Your task to perform on an android device: turn off improve location accuracy Image 0: 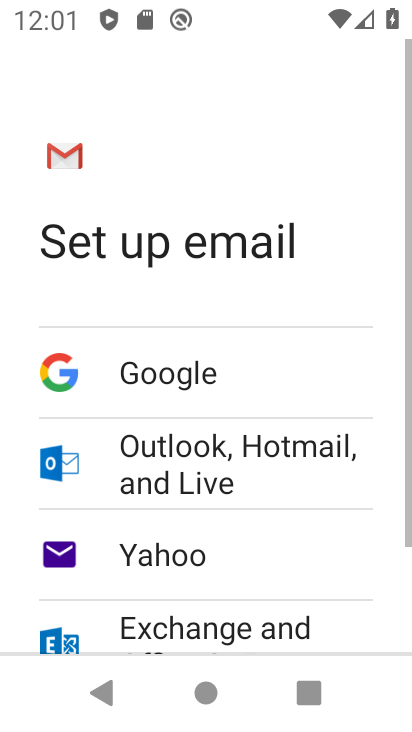
Step 0: press home button
Your task to perform on an android device: turn off improve location accuracy Image 1: 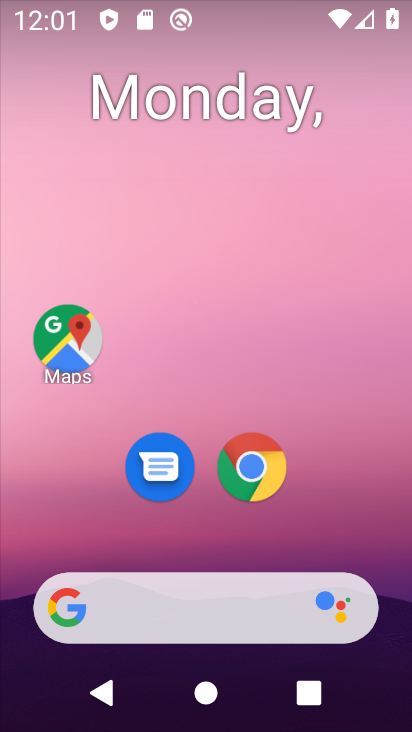
Step 1: drag from (381, 594) to (371, 13)
Your task to perform on an android device: turn off improve location accuracy Image 2: 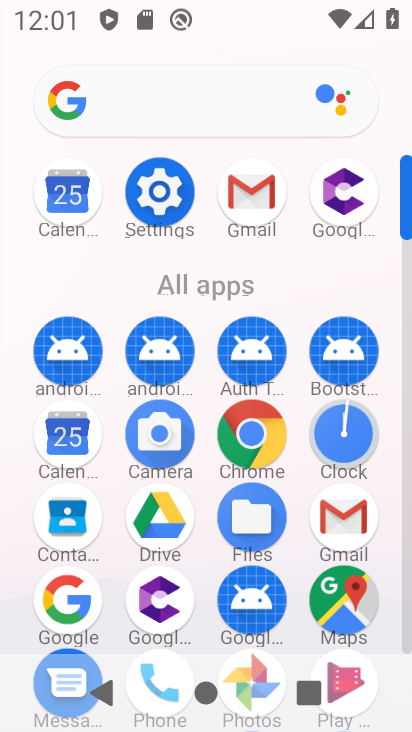
Step 2: click (406, 630)
Your task to perform on an android device: turn off improve location accuracy Image 3: 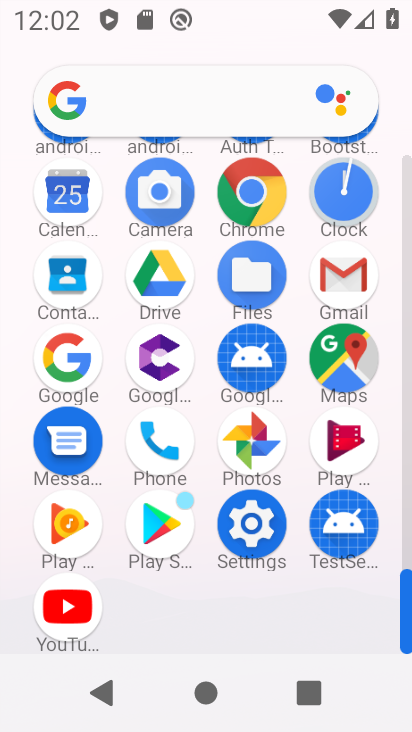
Step 3: click (251, 520)
Your task to perform on an android device: turn off improve location accuracy Image 4: 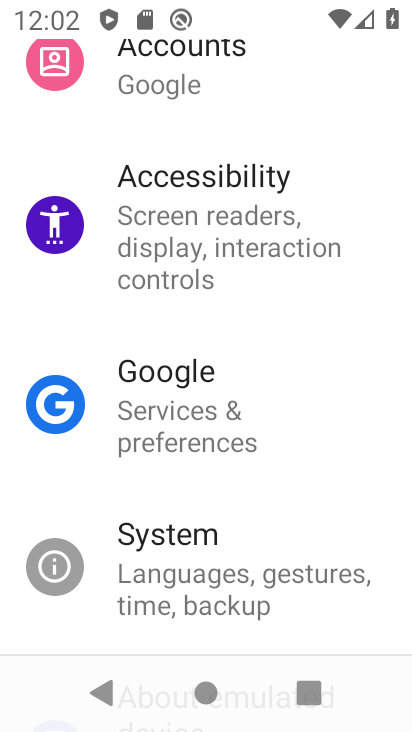
Step 4: drag from (344, 264) to (315, 571)
Your task to perform on an android device: turn off improve location accuracy Image 5: 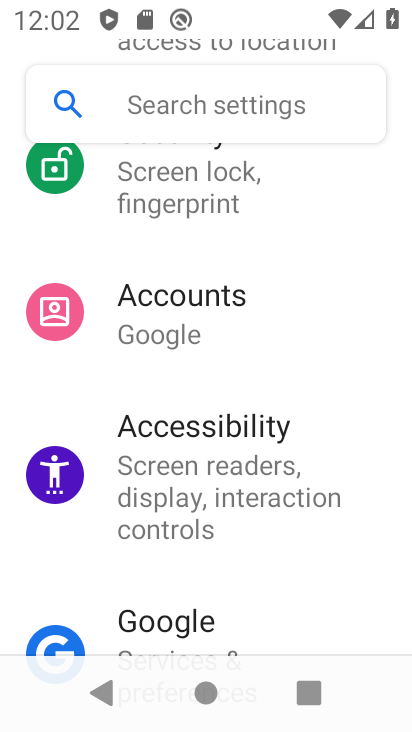
Step 5: drag from (351, 235) to (309, 549)
Your task to perform on an android device: turn off improve location accuracy Image 6: 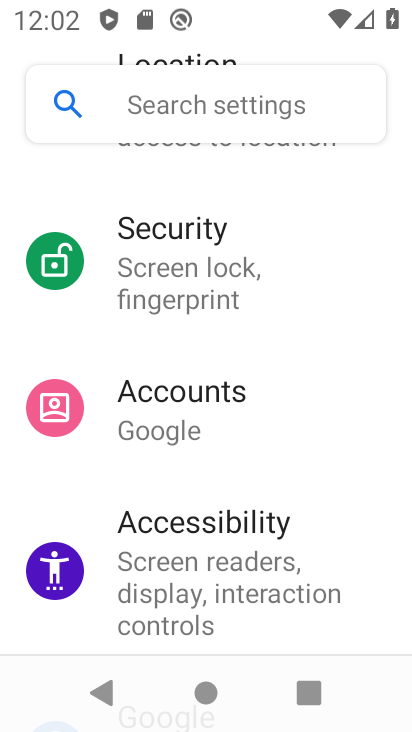
Step 6: drag from (324, 320) to (308, 528)
Your task to perform on an android device: turn off improve location accuracy Image 7: 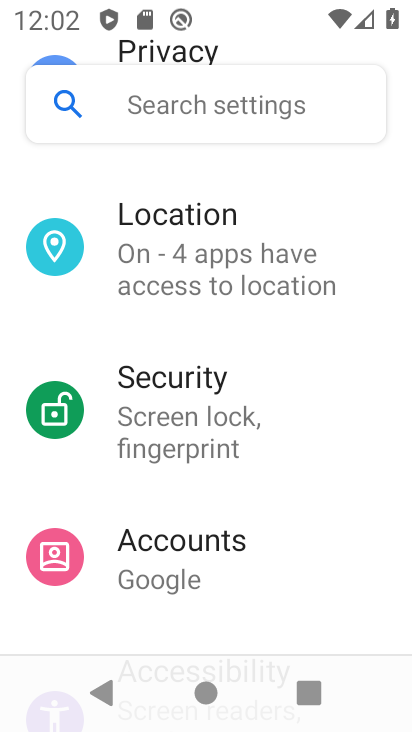
Step 7: drag from (308, 588) to (348, 215)
Your task to perform on an android device: turn off improve location accuracy Image 8: 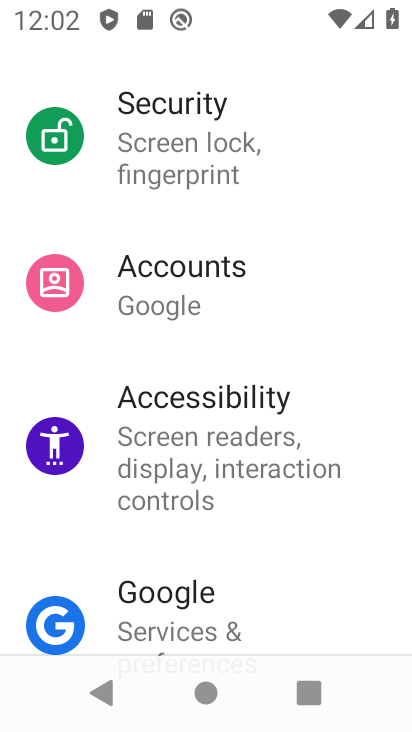
Step 8: drag from (342, 160) to (339, 499)
Your task to perform on an android device: turn off improve location accuracy Image 9: 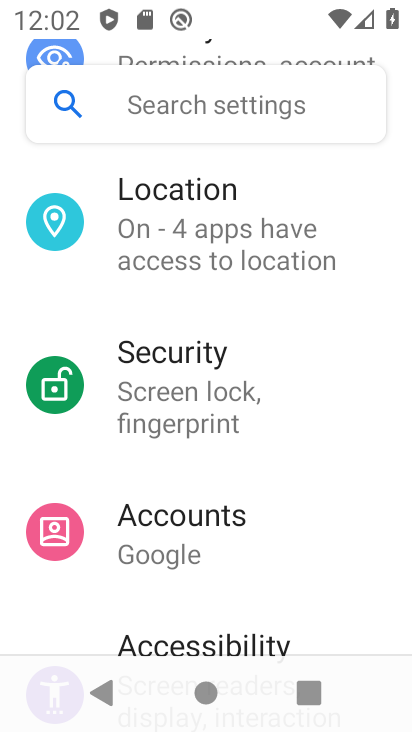
Step 9: drag from (332, 273) to (277, 435)
Your task to perform on an android device: turn off improve location accuracy Image 10: 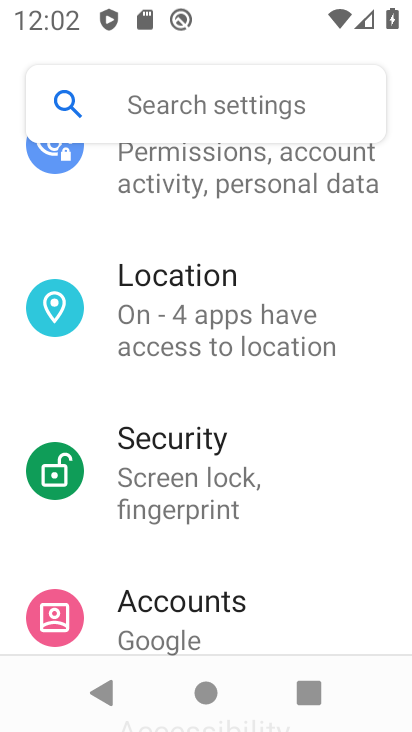
Step 10: click (163, 313)
Your task to perform on an android device: turn off improve location accuracy Image 11: 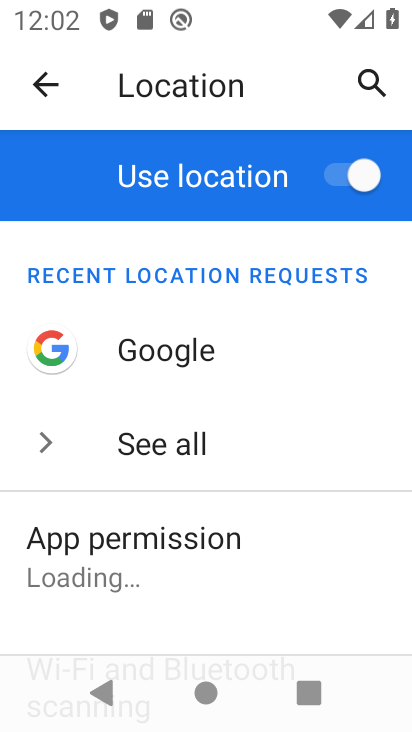
Step 11: drag from (287, 562) to (310, 194)
Your task to perform on an android device: turn off improve location accuracy Image 12: 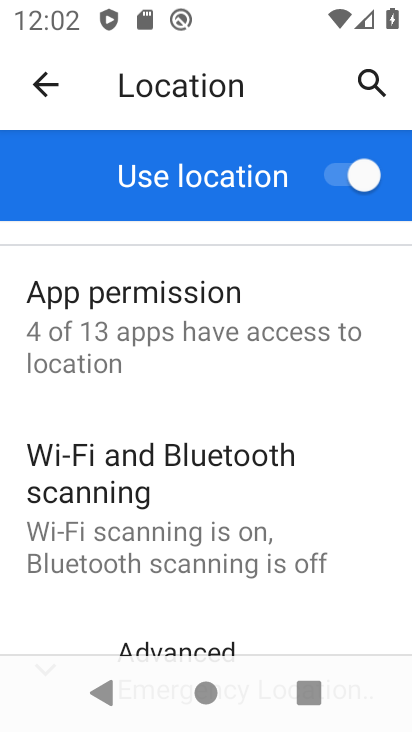
Step 12: drag from (313, 579) to (299, 210)
Your task to perform on an android device: turn off improve location accuracy Image 13: 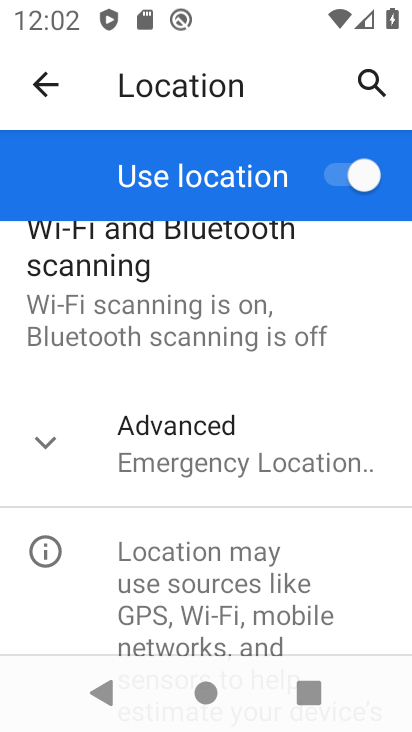
Step 13: click (44, 442)
Your task to perform on an android device: turn off improve location accuracy Image 14: 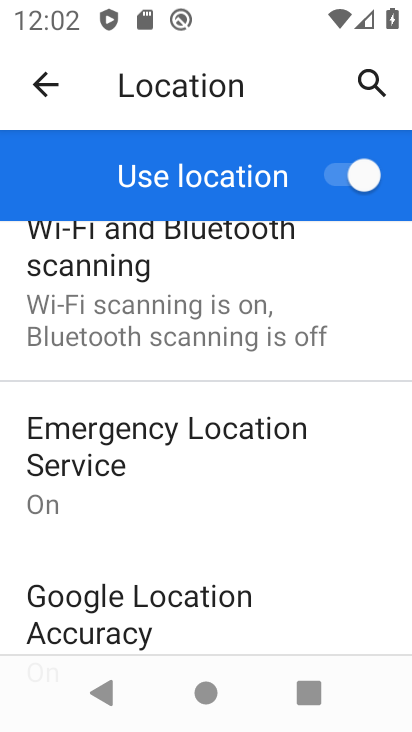
Step 14: drag from (297, 577) to (305, 191)
Your task to perform on an android device: turn off improve location accuracy Image 15: 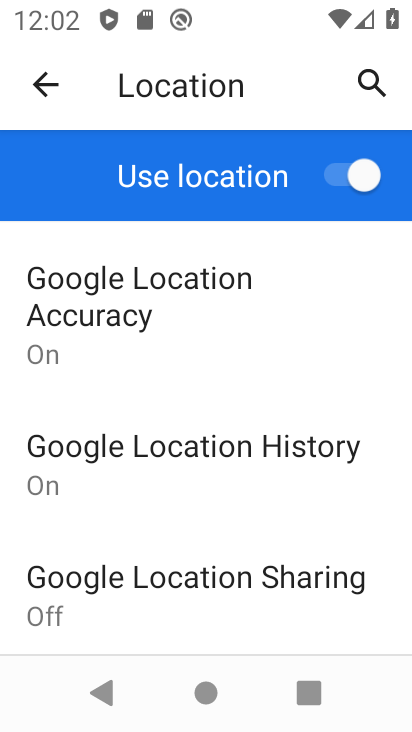
Step 15: click (35, 286)
Your task to perform on an android device: turn off improve location accuracy Image 16: 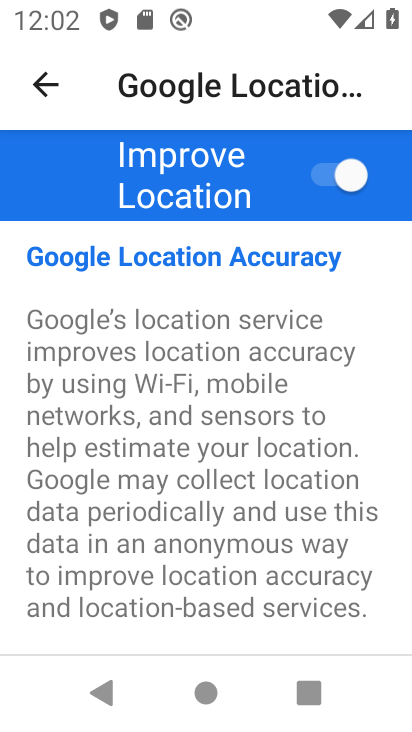
Step 16: click (315, 164)
Your task to perform on an android device: turn off improve location accuracy Image 17: 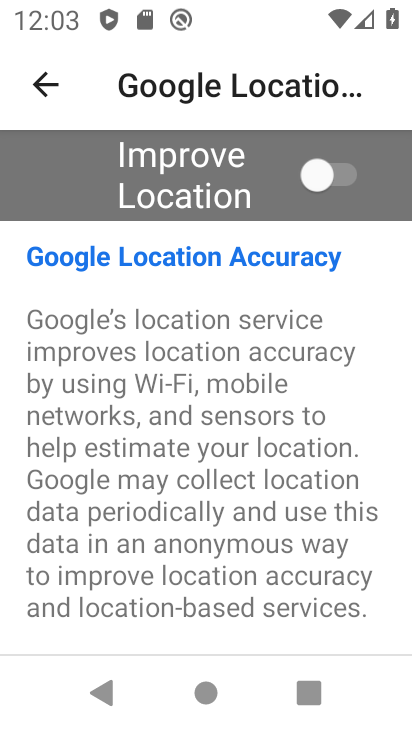
Step 17: task complete